Your task to perform on an android device: change notification settings in the gmail app Image 0: 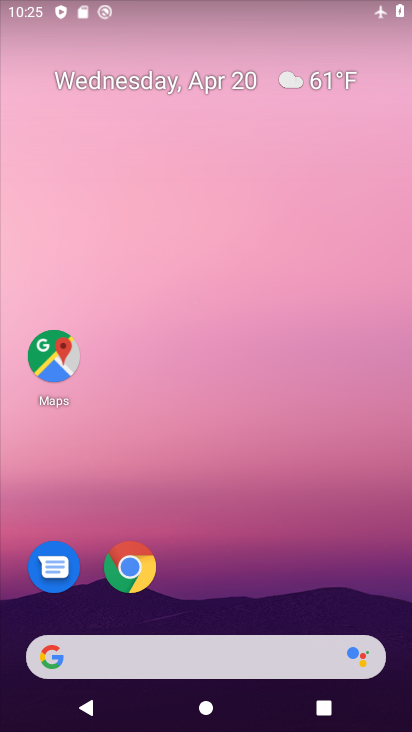
Step 0: drag from (259, 470) to (337, 3)
Your task to perform on an android device: change notification settings in the gmail app Image 1: 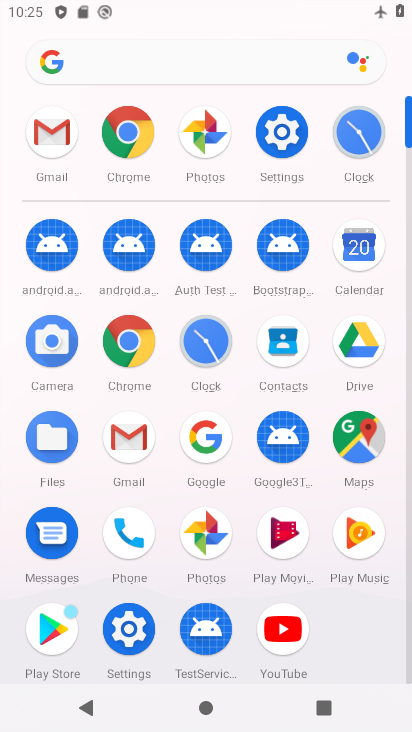
Step 1: click (275, 132)
Your task to perform on an android device: change notification settings in the gmail app Image 2: 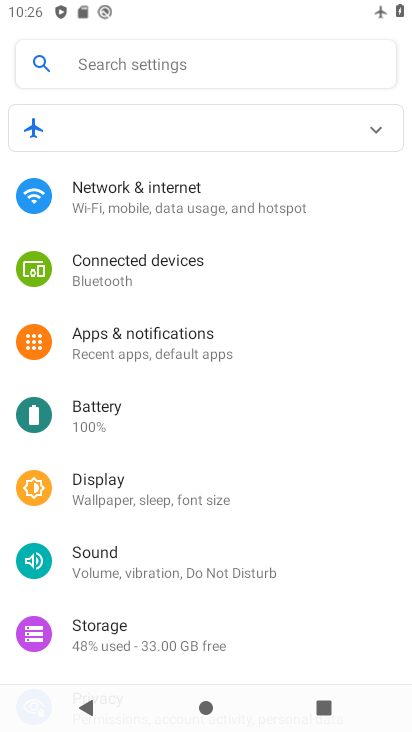
Step 2: click (188, 337)
Your task to perform on an android device: change notification settings in the gmail app Image 3: 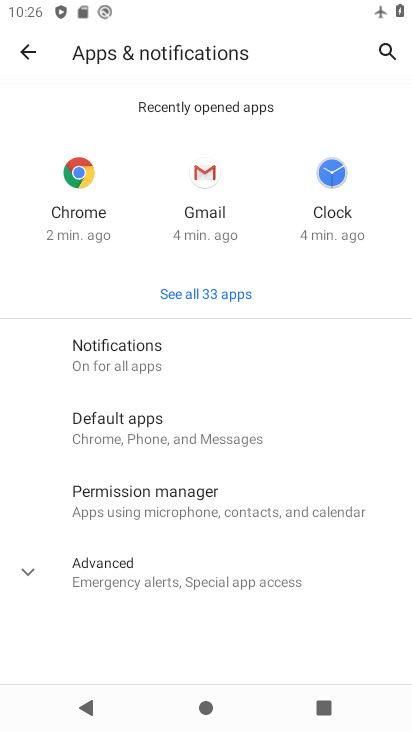
Step 3: click (200, 173)
Your task to perform on an android device: change notification settings in the gmail app Image 4: 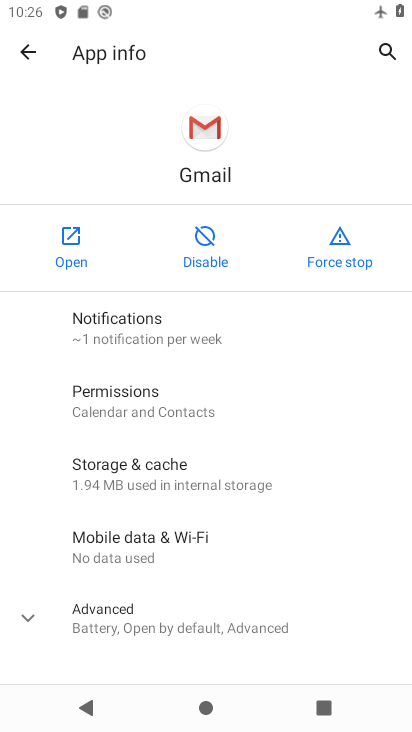
Step 4: click (146, 345)
Your task to perform on an android device: change notification settings in the gmail app Image 5: 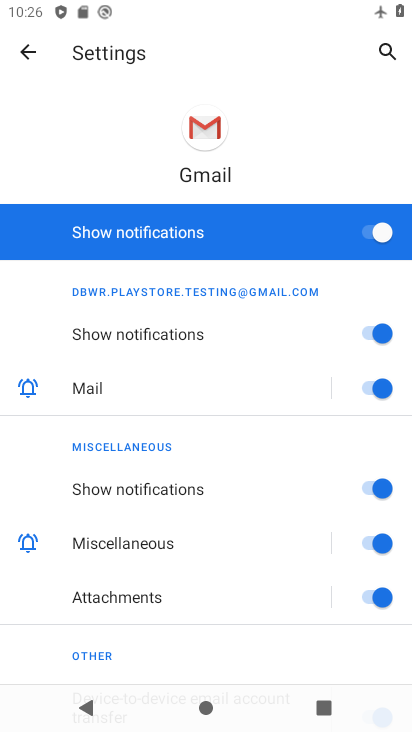
Step 5: click (378, 491)
Your task to perform on an android device: change notification settings in the gmail app Image 6: 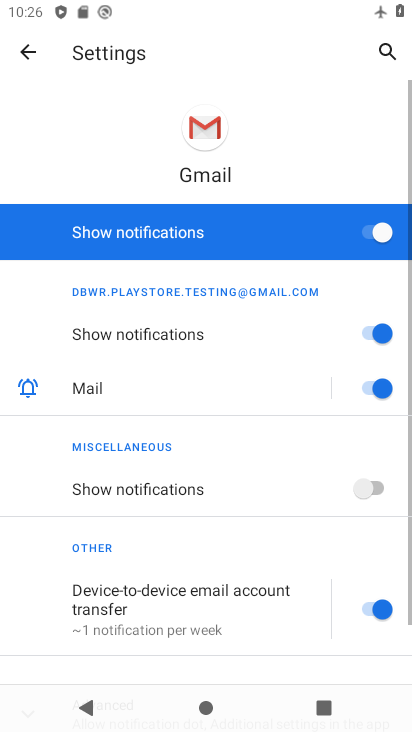
Step 6: task complete